Your task to perform on an android device: delete a single message in the gmail app Image 0: 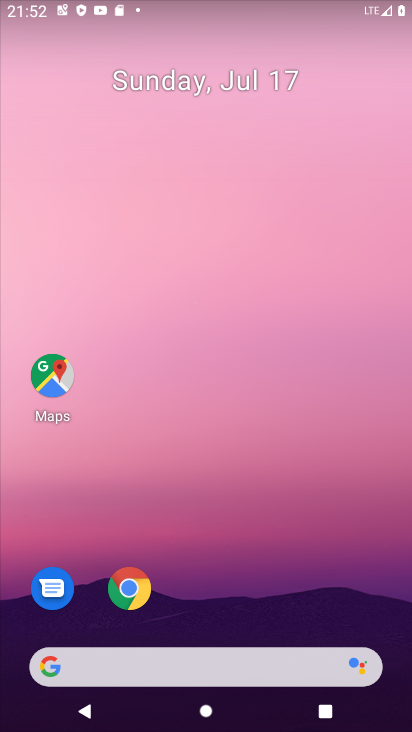
Step 0: press home button
Your task to perform on an android device: delete a single message in the gmail app Image 1: 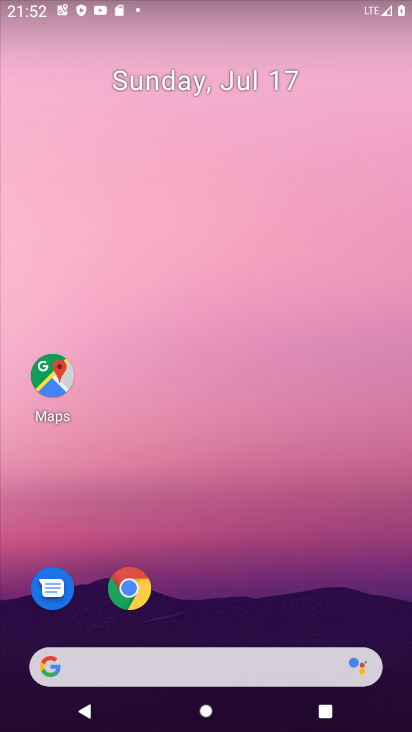
Step 1: press home button
Your task to perform on an android device: delete a single message in the gmail app Image 2: 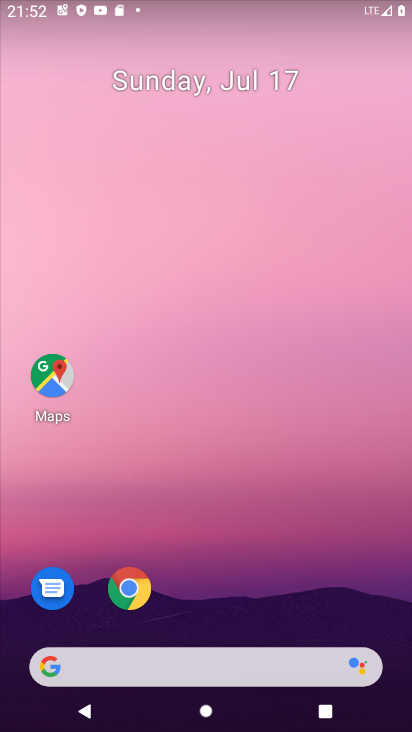
Step 2: drag from (348, 640) to (331, 476)
Your task to perform on an android device: delete a single message in the gmail app Image 3: 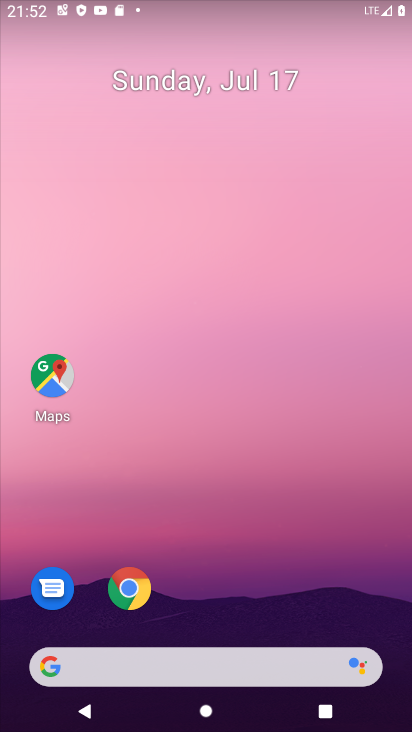
Step 3: drag from (347, 594) to (370, 100)
Your task to perform on an android device: delete a single message in the gmail app Image 4: 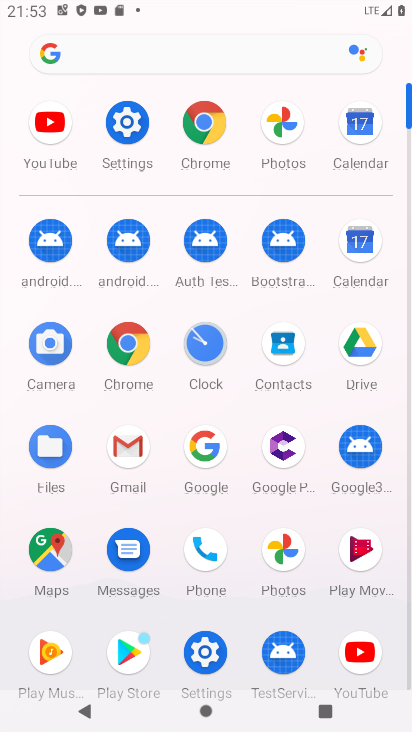
Step 4: click (137, 460)
Your task to perform on an android device: delete a single message in the gmail app Image 5: 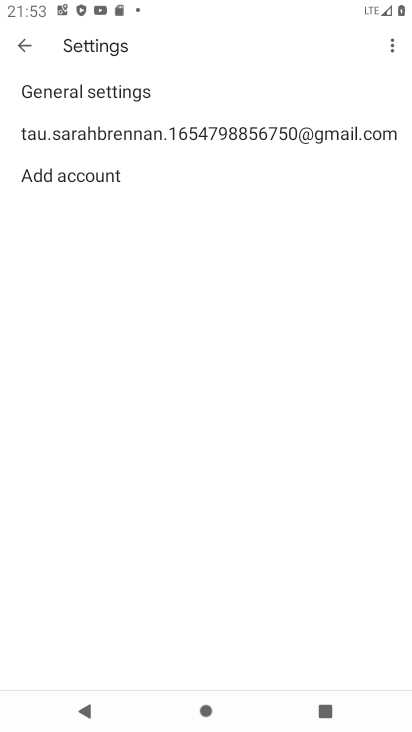
Step 5: click (144, 133)
Your task to perform on an android device: delete a single message in the gmail app Image 6: 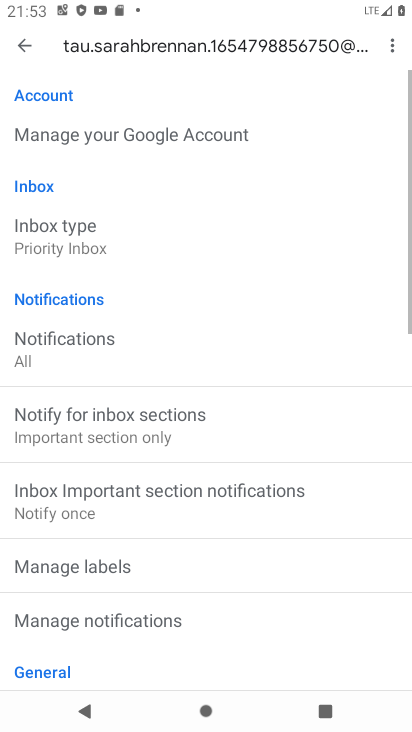
Step 6: drag from (248, 664) to (249, 577)
Your task to perform on an android device: delete a single message in the gmail app Image 7: 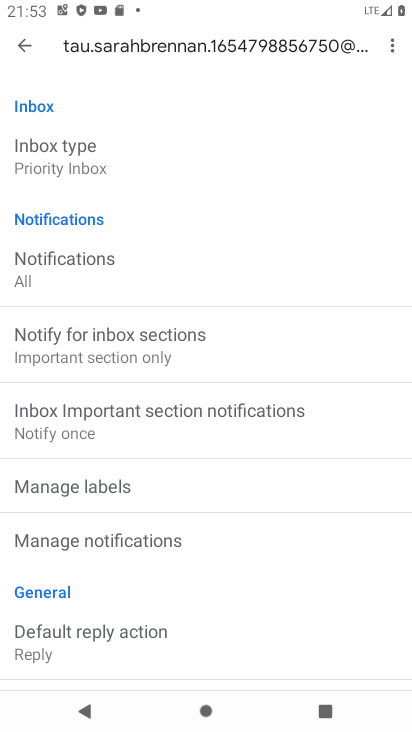
Step 7: click (35, 50)
Your task to perform on an android device: delete a single message in the gmail app Image 8: 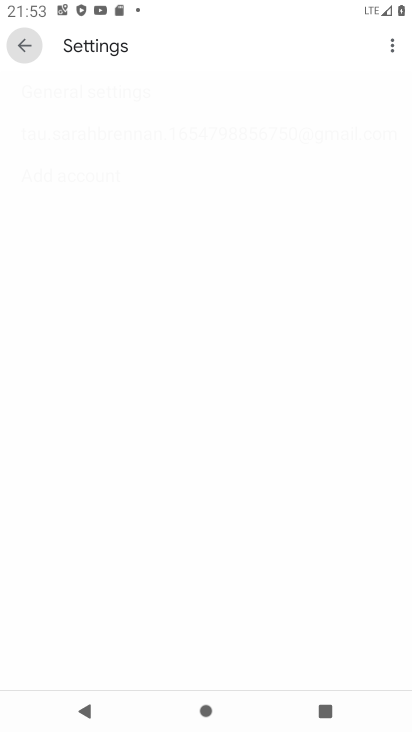
Step 8: click (35, 53)
Your task to perform on an android device: delete a single message in the gmail app Image 9: 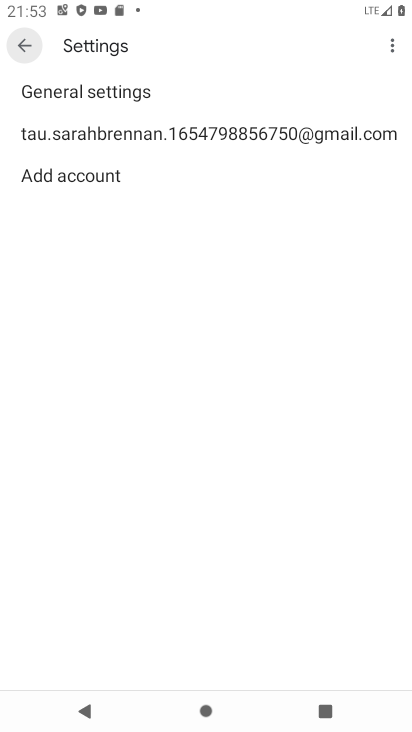
Step 9: click (35, 53)
Your task to perform on an android device: delete a single message in the gmail app Image 10: 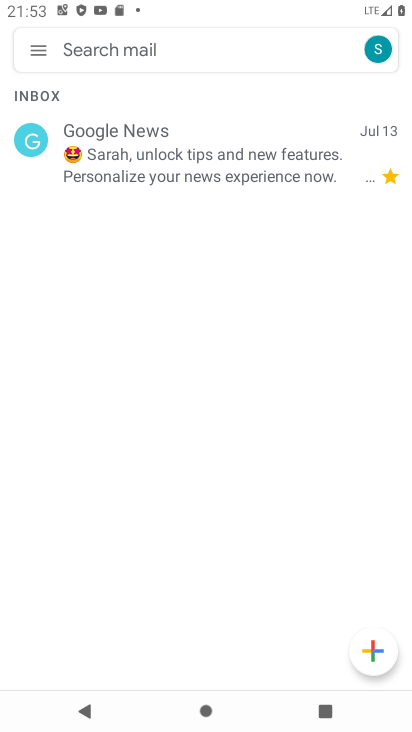
Step 10: click (158, 144)
Your task to perform on an android device: delete a single message in the gmail app Image 11: 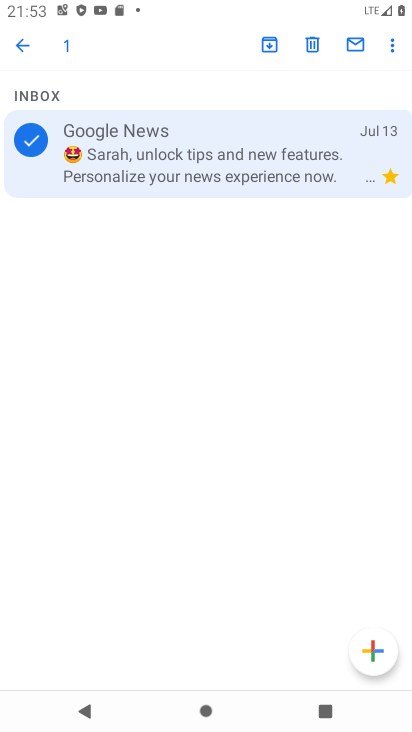
Step 11: click (319, 46)
Your task to perform on an android device: delete a single message in the gmail app Image 12: 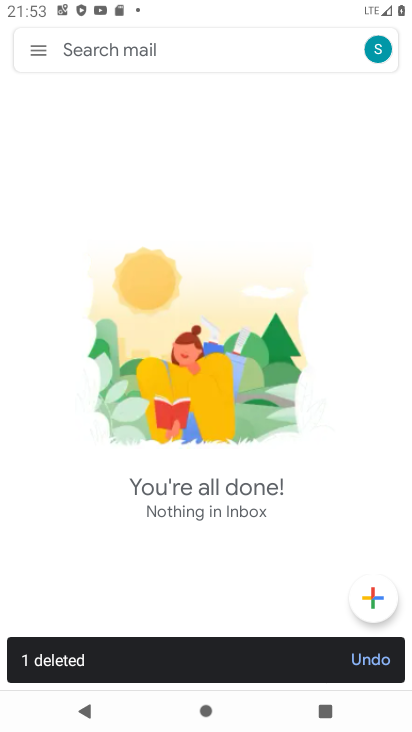
Step 12: task complete